Your task to perform on an android device: delete browsing data in the chrome app Image 0: 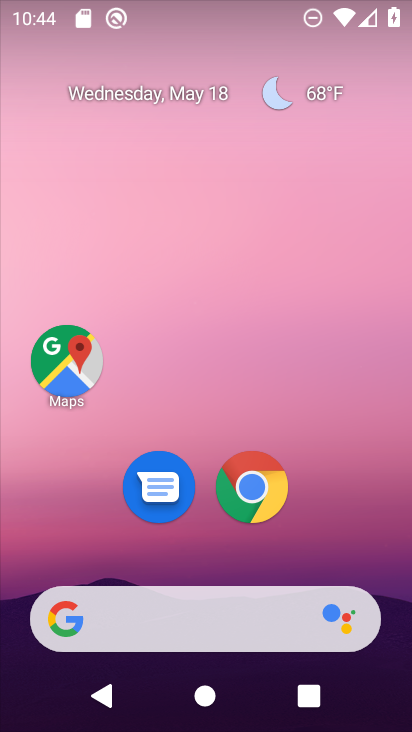
Step 0: drag from (350, 541) to (356, 211)
Your task to perform on an android device: delete browsing data in the chrome app Image 1: 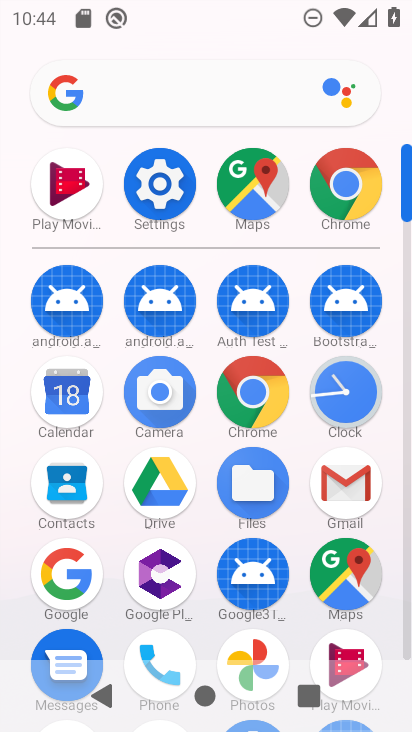
Step 1: click (271, 410)
Your task to perform on an android device: delete browsing data in the chrome app Image 2: 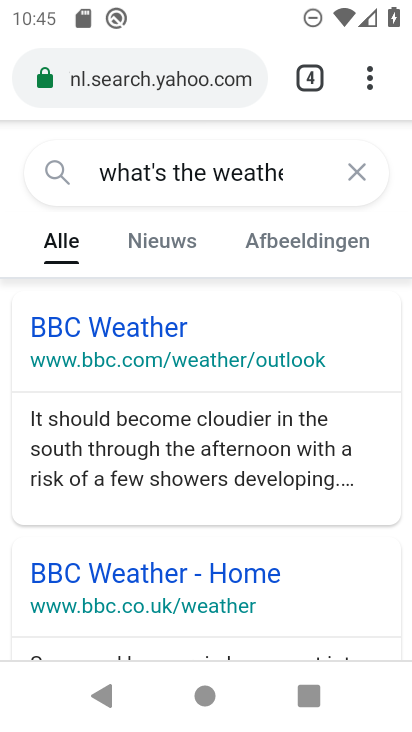
Step 2: drag from (377, 95) to (146, 459)
Your task to perform on an android device: delete browsing data in the chrome app Image 3: 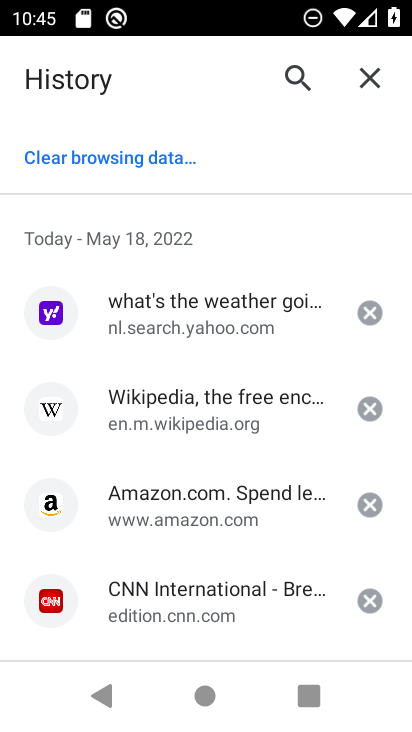
Step 3: click (141, 149)
Your task to perform on an android device: delete browsing data in the chrome app Image 4: 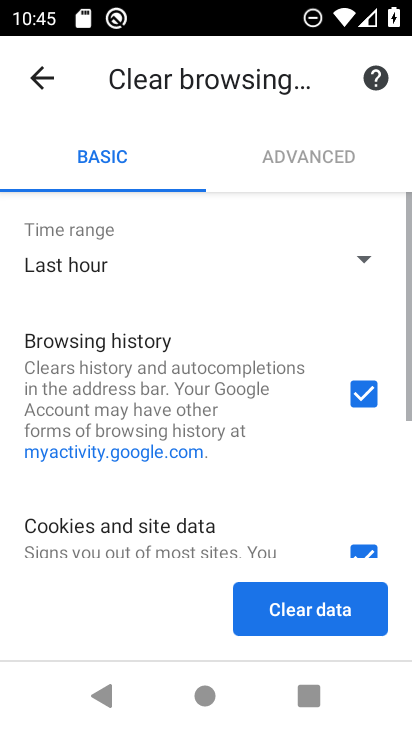
Step 4: click (313, 603)
Your task to perform on an android device: delete browsing data in the chrome app Image 5: 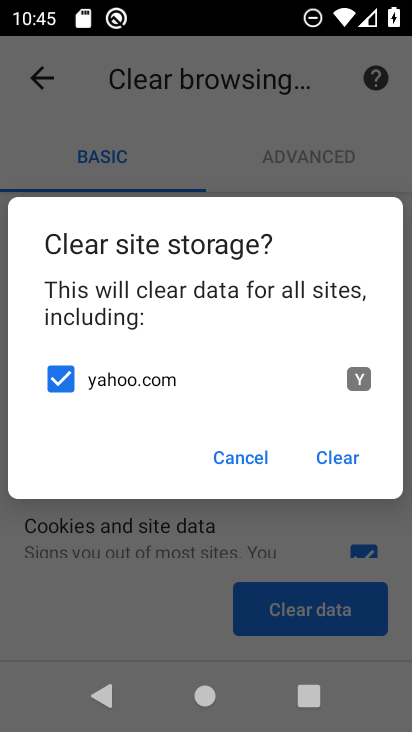
Step 5: click (316, 455)
Your task to perform on an android device: delete browsing data in the chrome app Image 6: 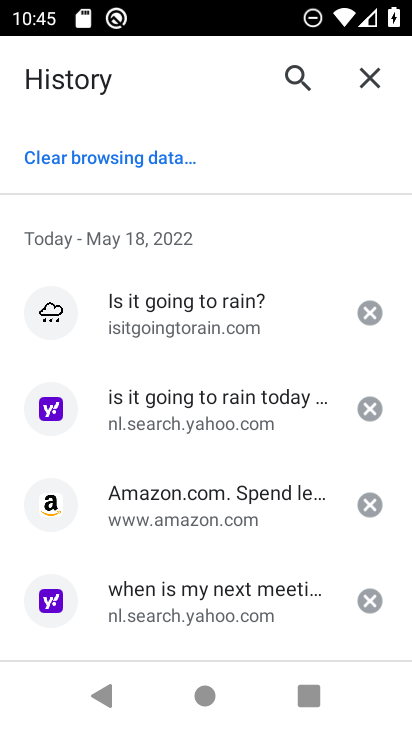
Step 6: task complete